Your task to perform on an android device: Open Chrome and go to settings Image 0: 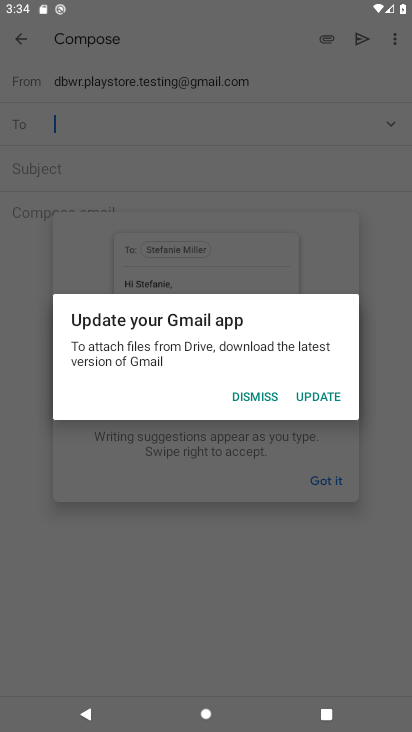
Step 0: press home button
Your task to perform on an android device: Open Chrome and go to settings Image 1: 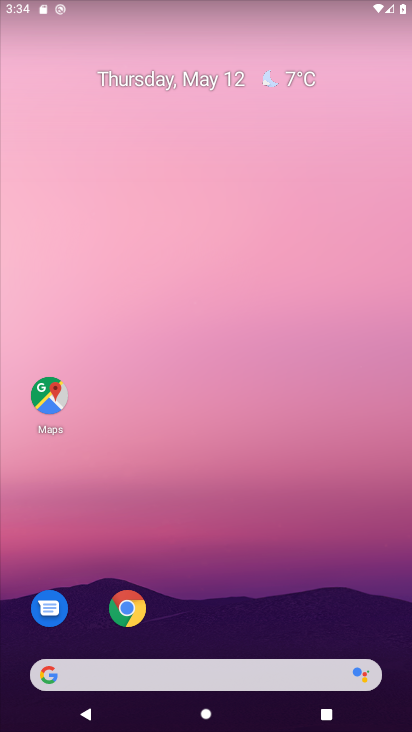
Step 1: click (129, 607)
Your task to perform on an android device: Open Chrome and go to settings Image 2: 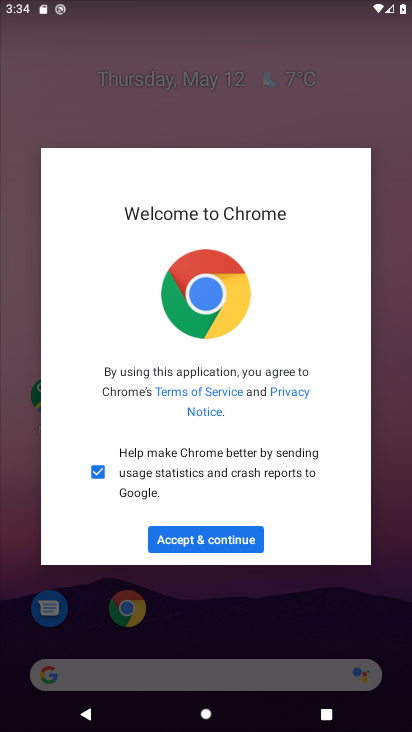
Step 2: click (231, 545)
Your task to perform on an android device: Open Chrome and go to settings Image 3: 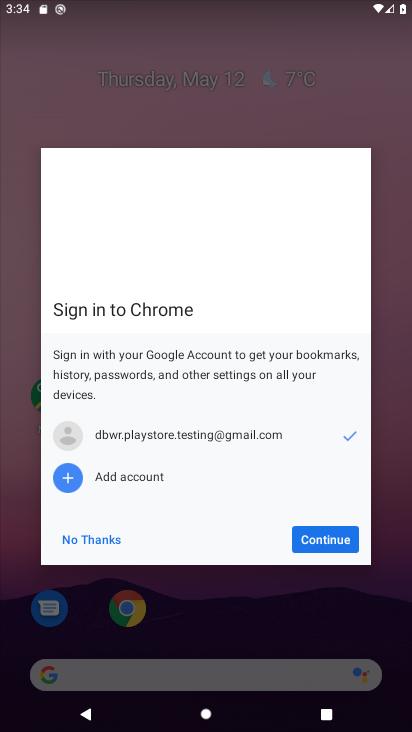
Step 3: click (321, 534)
Your task to perform on an android device: Open Chrome and go to settings Image 4: 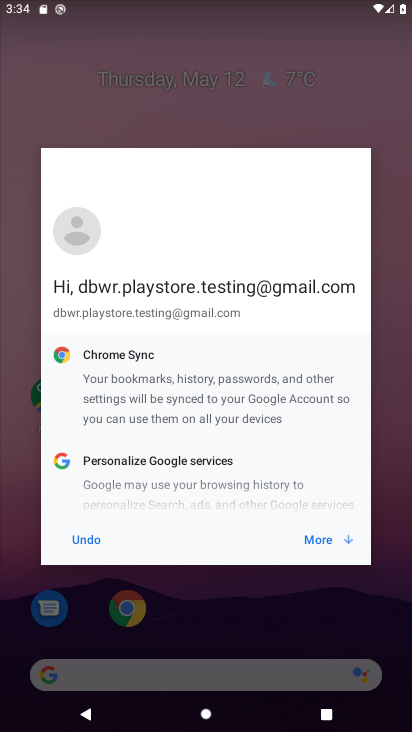
Step 4: click (321, 532)
Your task to perform on an android device: Open Chrome and go to settings Image 5: 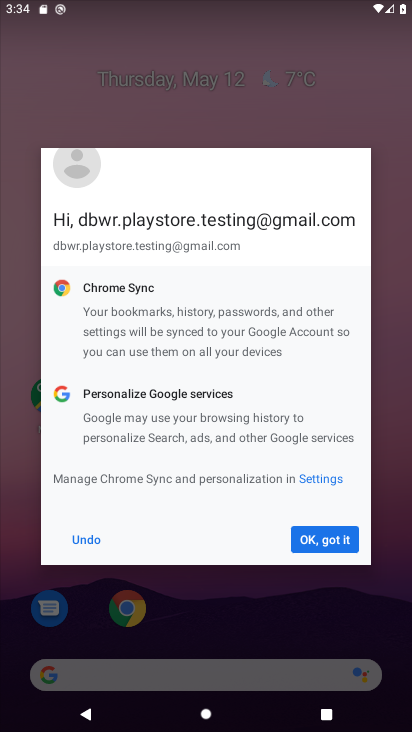
Step 5: click (321, 532)
Your task to perform on an android device: Open Chrome and go to settings Image 6: 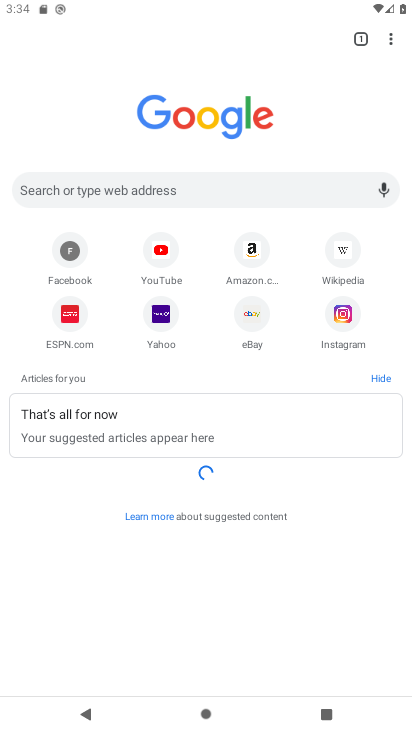
Step 6: click (389, 37)
Your task to perform on an android device: Open Chrome and go to settings Image 7: 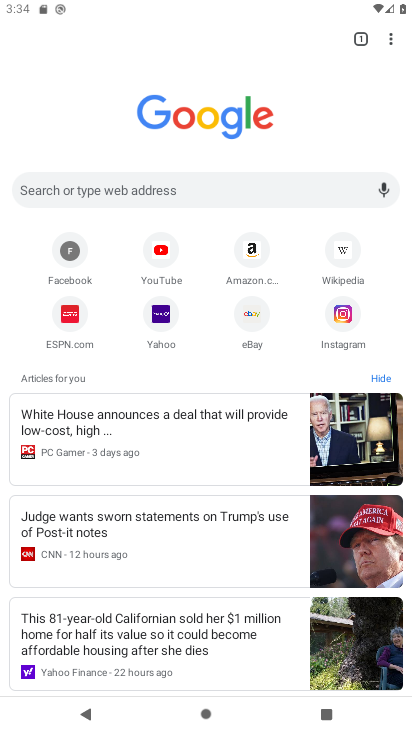
Step 7: click (389, 38)
Your task to perform on an android device: Open Chrome and go to settings Image 8: 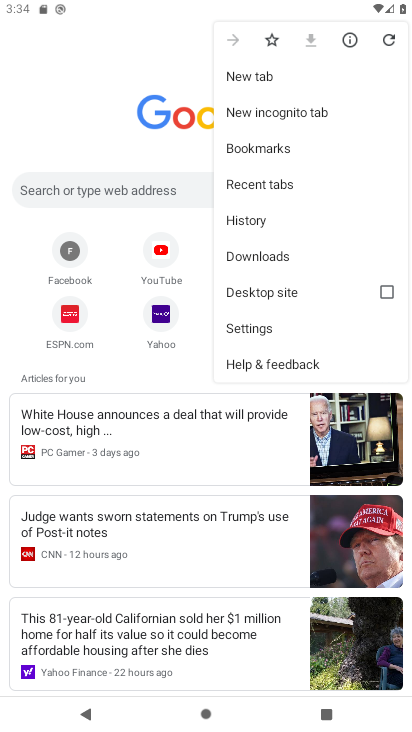
Step 8: click (289, 324)
Your task to perform on an android device: Open Chrome and go to settings Image 9: 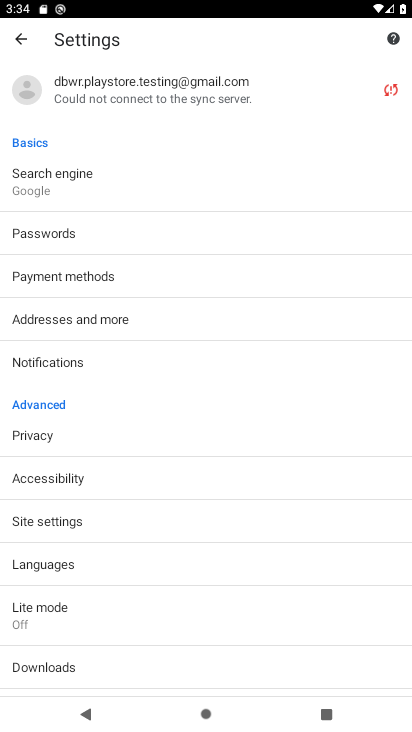
Step 9: task complete